Your task to perform on an android device: Go to accessibility settings Image 0: 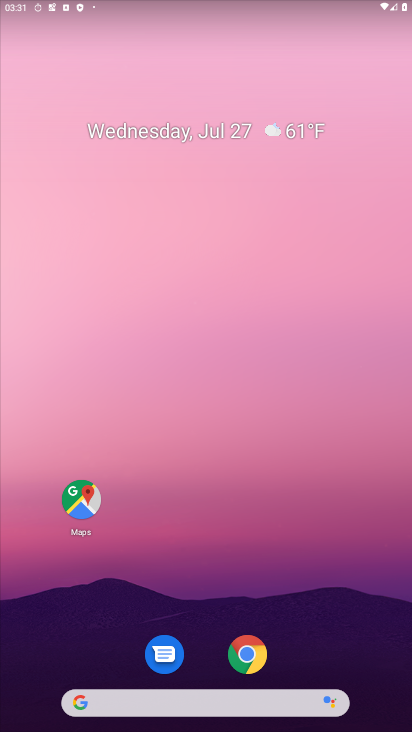
Step 0: press home button
Your task to perform on an android device: Go to accessibility settings Image 1: 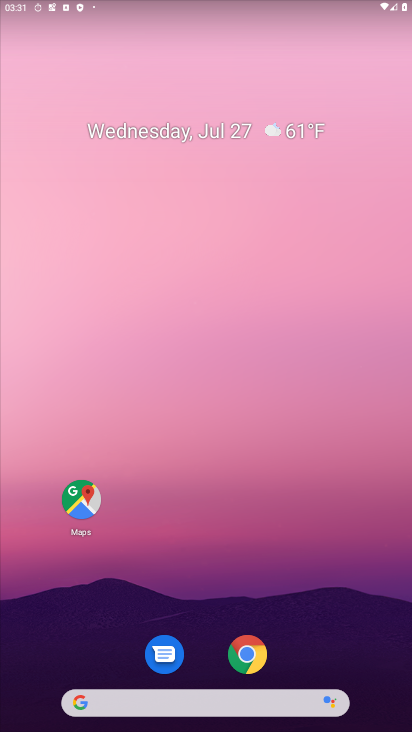
Step 1: drag from (250, 676) to (332, 46)
Your task to perform on an android device: Go to accessibility settings Image 2: 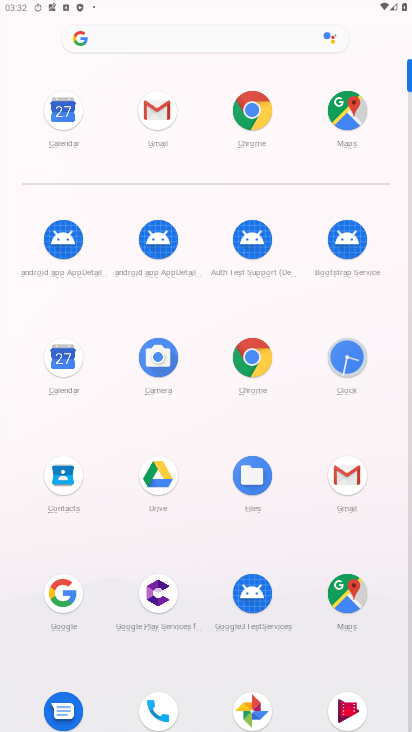
Step 2: drag from (206, 629) to (174, 168)
Your task to perform on an android device: Go to accessibility settings Image 3: 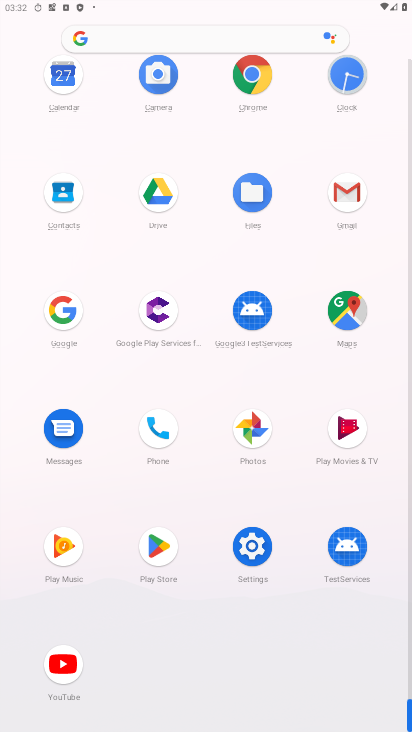
Step 3: click (252, 549)
Your task to perform on an android device: Go to accessibility settings Image 4: 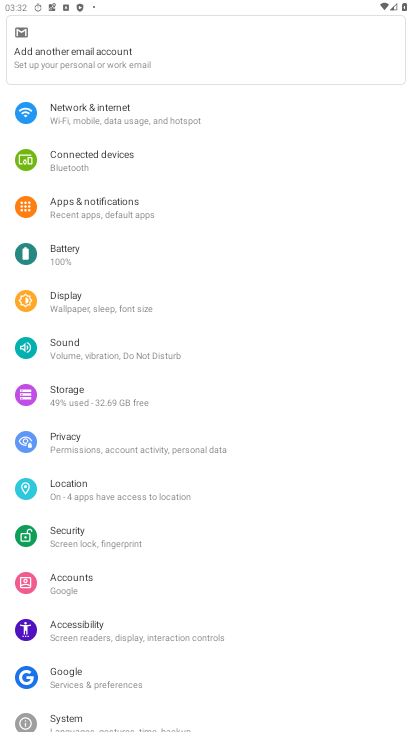
Step 4: click (112, 626)
Your task to perform on an android device: Go to accessibility settings Image 5: 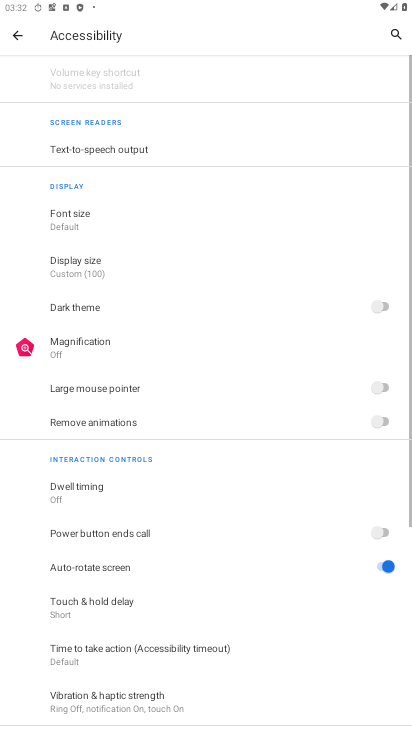
Step 5: task complete